Your task to perform on an android device: Clear all items from cart on walmart.com. Image 0: 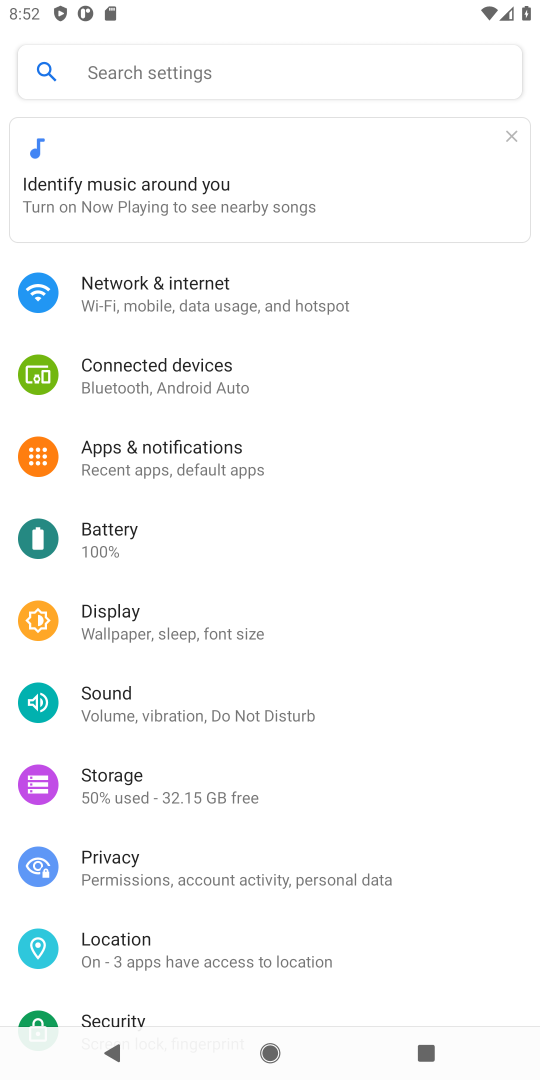
Step 0: press home button
Your task to perform on an android device: Clear all items from cart on walmart.com. Image 1: 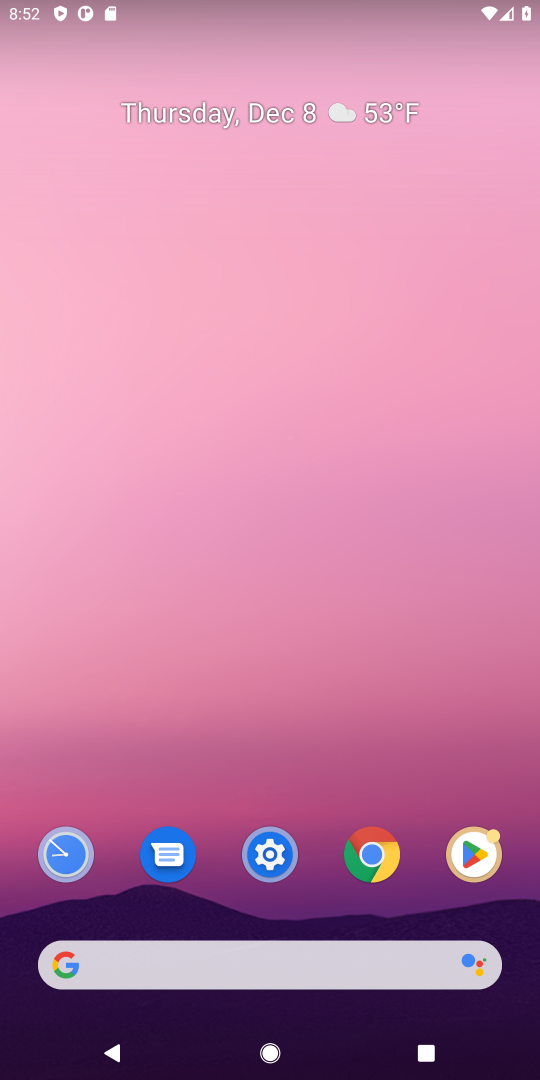
Step 1: click (92, 960)
Your task to perform on an android device: Clear all items from cart on walmart.com. Image 2: 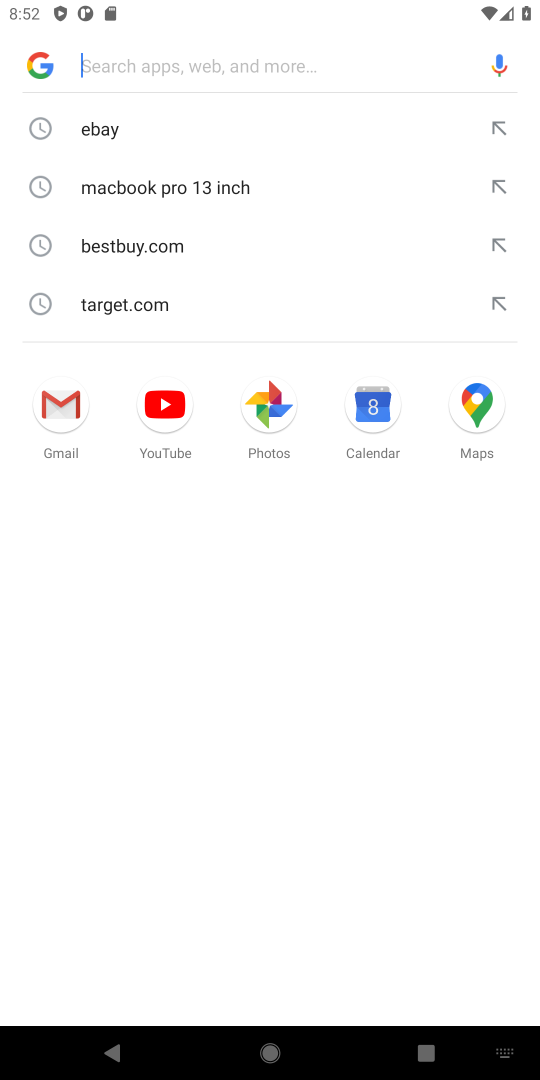
Step 2: type "walmart.com"
Your task to perform on an android device: Clear all items from cart on walmart.com. Image 3: 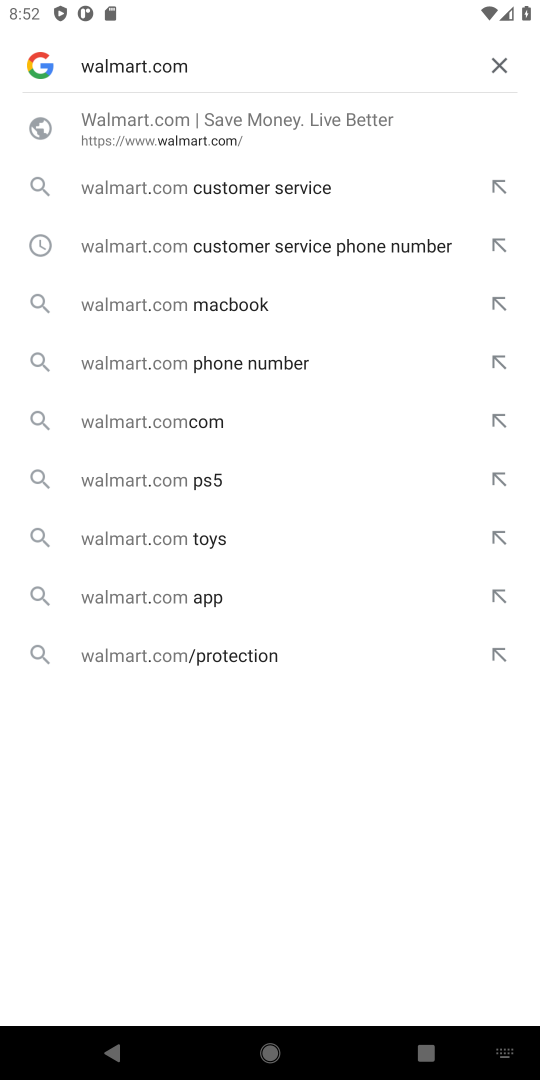
Step 3: press enter
Your task to perform on an android device: Clear all items from cart on walmart.com. Image 4: 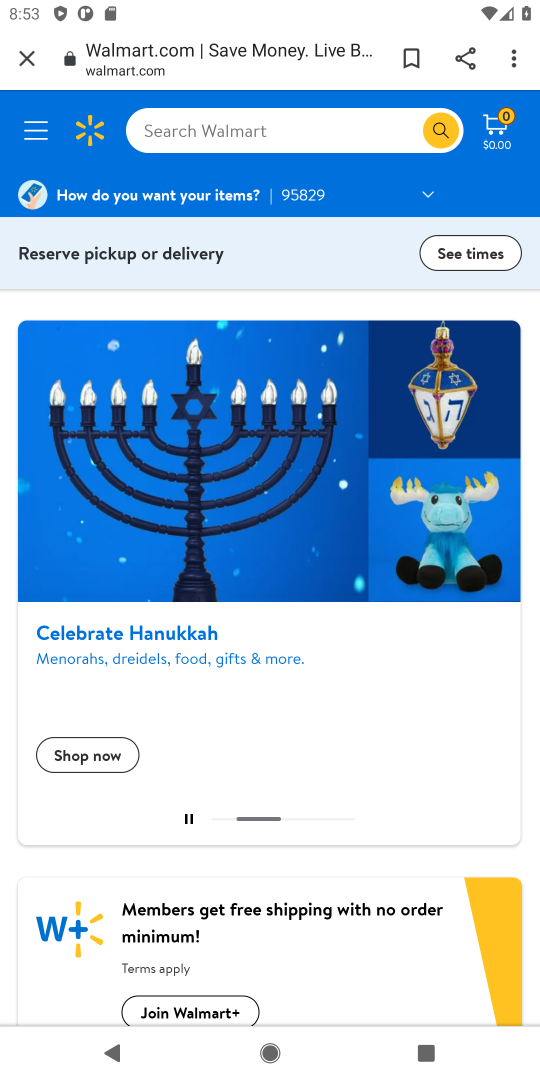
Step 4: click (488, 116)
Your task to perform on an android device: Clear all items from cart on walmart.com. Image 5: 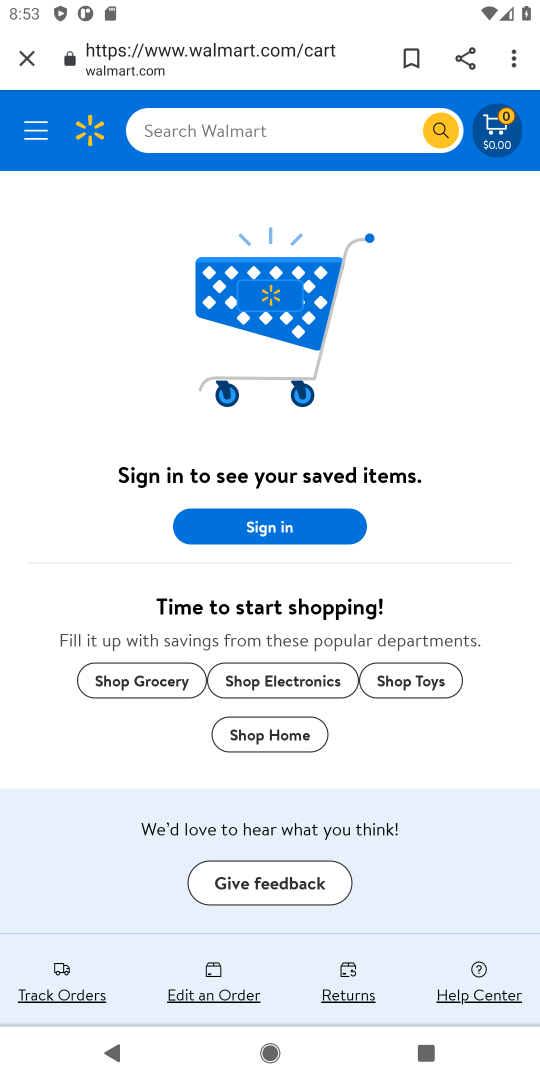
Step 5: task complete